Your task to perform on an android device: see creations saved in the google photos Image 0: 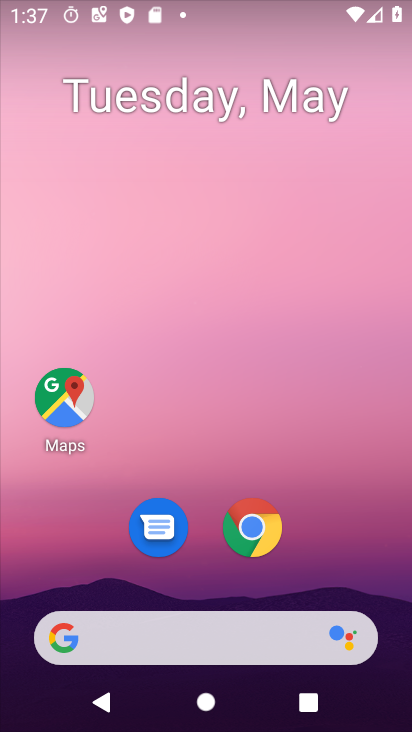
Step 0: drag from (267, 656) to (232, 273)
Your task to perform on an android device: see creations saved in the google photos Image 1: 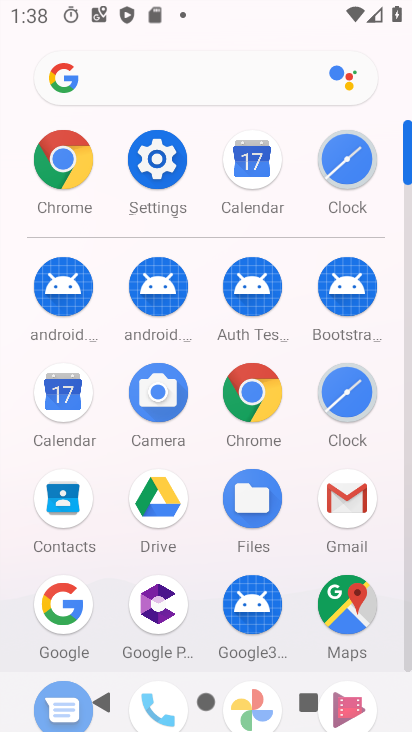
Step 1: drag from (191, 567) to (210, 361)
Your task to perform on an android device: see creations saved in the google photos Image 2: 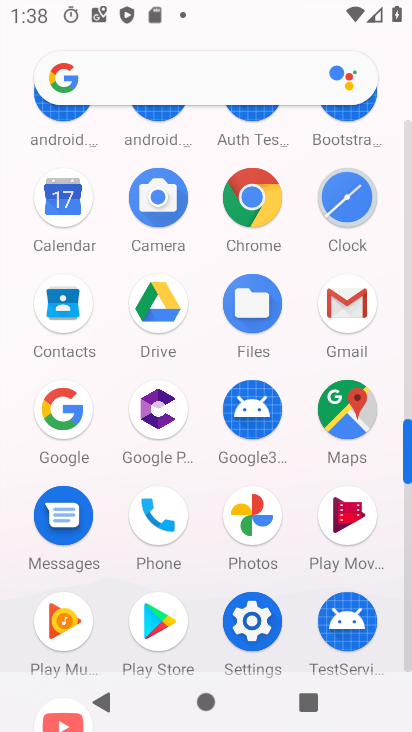
Step 2: click (243, 530)
Your task to perform on an android device: see creations saved in the google photos Image 3: 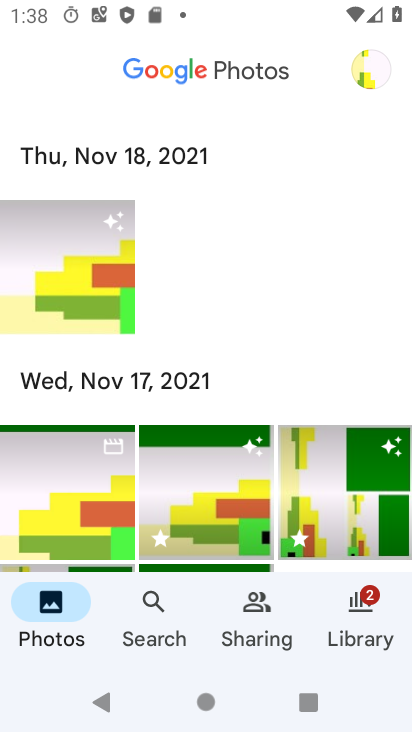
Step 3: click (92, 251)
Your task to perform on an android device: see creations saved in the google photos Image 4: 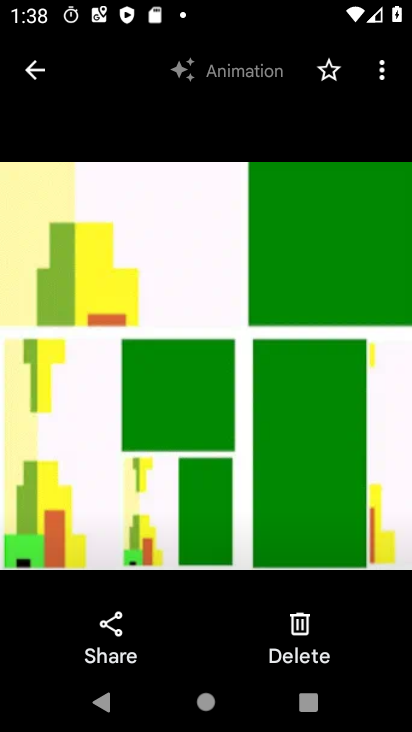
Step 4: click (379, 68)
Your task to perform on an android device: see creations saved in the google photos Image 5: 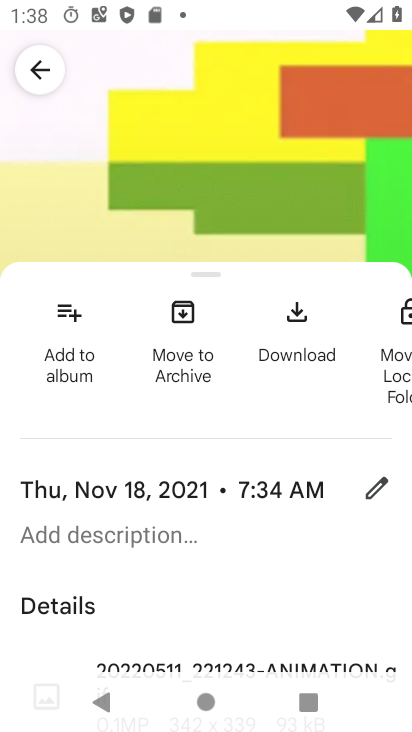
Step 5: task complete